Your task to perform on an android device: Show the shopping cart on newegg.com. Search for "razer huntsman" on newegg.com, select the first entry, add it to the cart, then select checkout. Image 0: 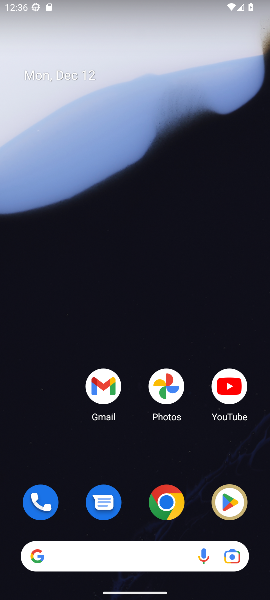
Step 0: click (165, 509)
Your task to perform on an android device: Show the shopping cart on newegg.com. Search for "razer huntsman" on newegg.com, select the first entry, add it to the cart, then select checkout. Image 1: 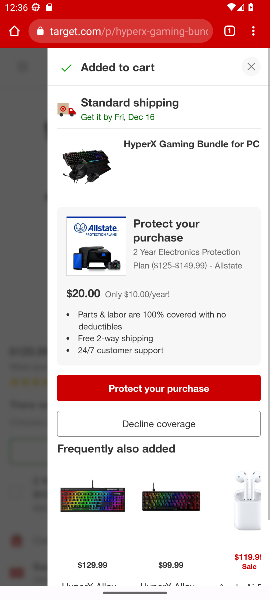
Step 1: click (111, 31)
Your task to perform on an android device: Show the shopping cart on newegg.com. Search for "razer huntsman" on newegg.com, select the first entry, add it to the cart, then select checkout. Image 2: 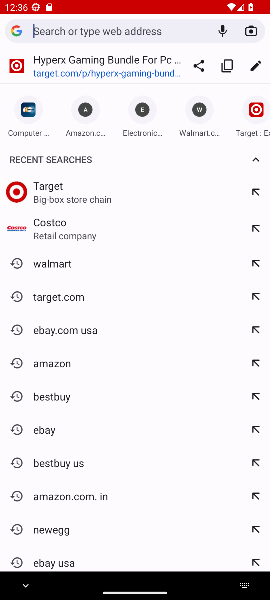
Step 2: type "newegg"
Your task to perform on an android device: Show the shopping cart on newegg.com. Search for "razer huntsman" on newegg.com, select the first entry, add it to the cart, then select checkout. Image 3: 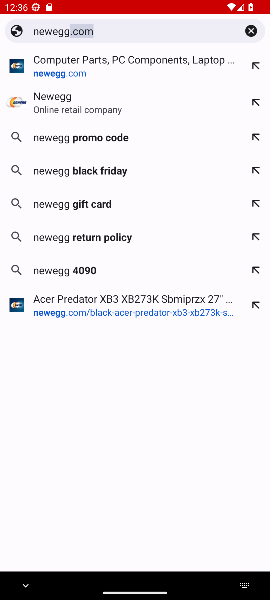
Step 3: click (77, 62)
Your task to perform on an android device: Show the shopping cart on newegg.com. Search for "razer huntsman" on newegg.com, select the first entry, add it to the cart, then select checkout. Image 4: 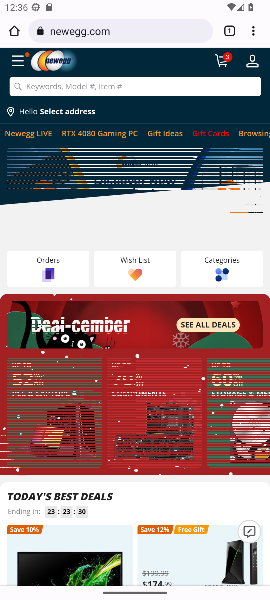
Step 4: click (99, 91)
Your task to perform on an android device: Show the shopping cart on newegg.com. Search for "razer huntsman" on newegg.com, select the first entry, add it to the cart, then select checkout. Image 5: 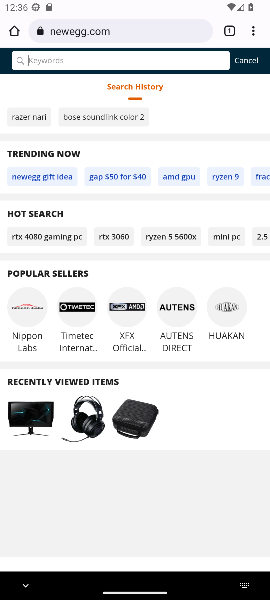
Step 5: type "razer huntsman"
Your task to perform on an android device: Show the shopping cart on newegg.com. Search for "razer huntsman" on newegg.com, select the first entry, add it to the cart, then select checkout. Image 6: 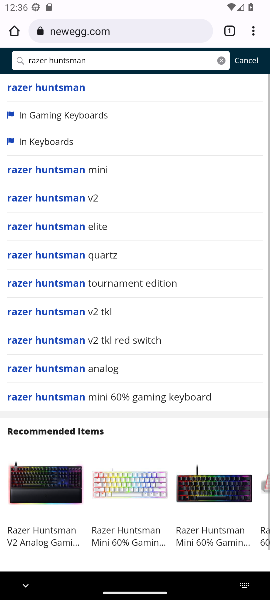
Step 6: click (21, 89)
Your task to perform on an android device: Show the shopping cart on newegg.com. Search for "razer huntsman" on newegg.com, select the first entry, add it to the cart, then select checkout. Image 7: 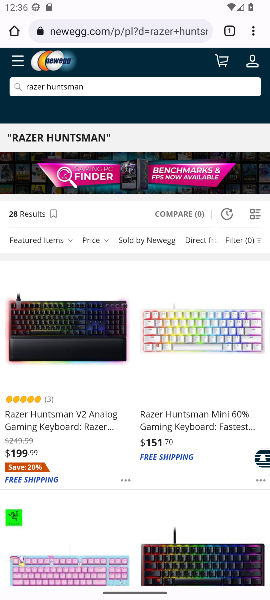
Step 7: click (105, 278)
Your task to perform on an android device: Show the shopping cart on newegg.com. Search for "razer huntsman" on newegg.com, select the first entry, add it to the cart, then select checkout. Image 8: 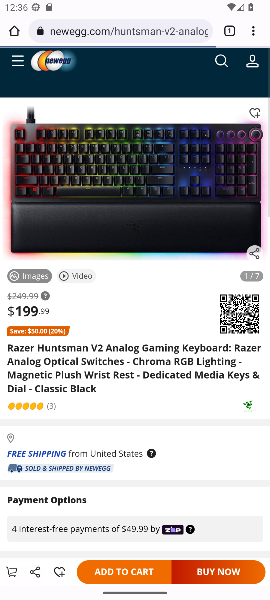
Step 8: click (102, 337)
Your task to perform on an android device: Show the shopping cart on newegg.com. Search for "razer huntsman" on newegg.com, select the first entry, add it to the cart, then select checkout. Image 9: 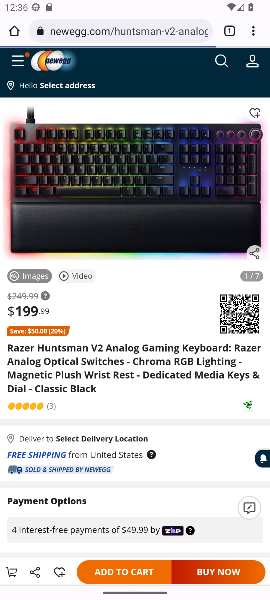
Step 9: click (125, 571)
Your task to perform on an android device: Show the shopping cart on newegg.com. Search for "razer huntsman" on newegg.com, select the first entry, add it to the cart, then select checkout. Image 10: 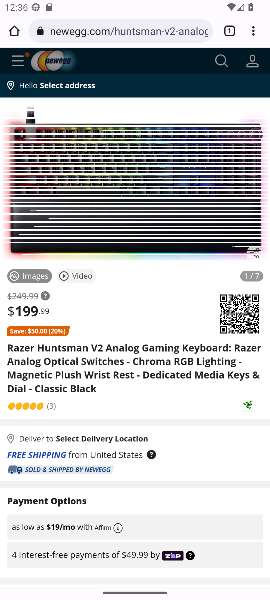
Step 10: task complete